Your task to perform on an android device: Search for vegetarian restaurants on Maps Image 0: 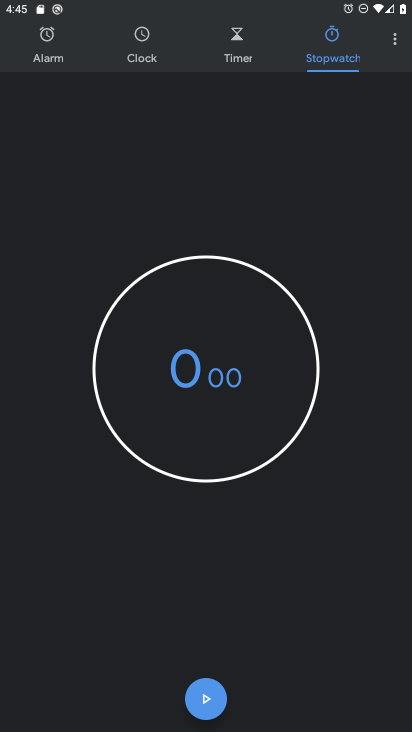
Step 0: press home button
Your task to perform on an android device: Search for vegetarian restaurants on Maps Image 1: 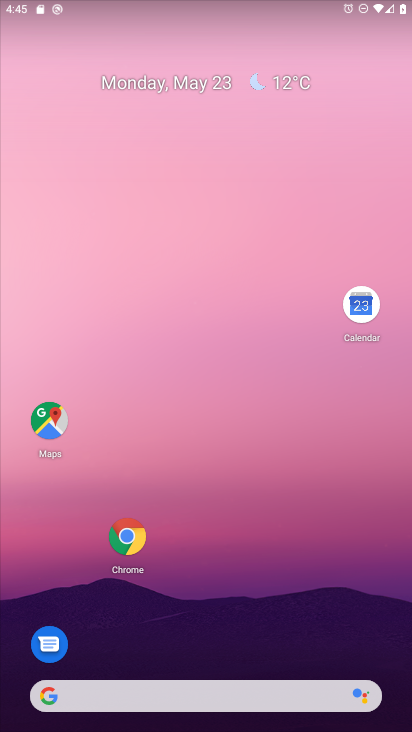
Step 1: click (46, 414)
Your task to perform on an android device: Search for vegetarian restaurants on Maps Image 2: 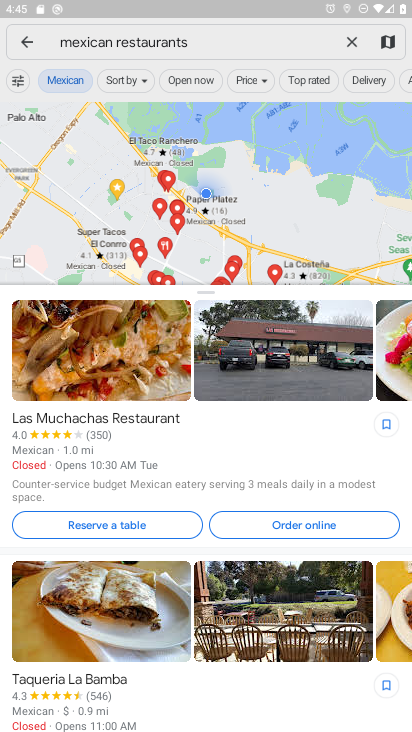
Step 2: click (214, 52)
Your task to perform on an android device: Search for vegetarian restaurants on Maps Image 3: 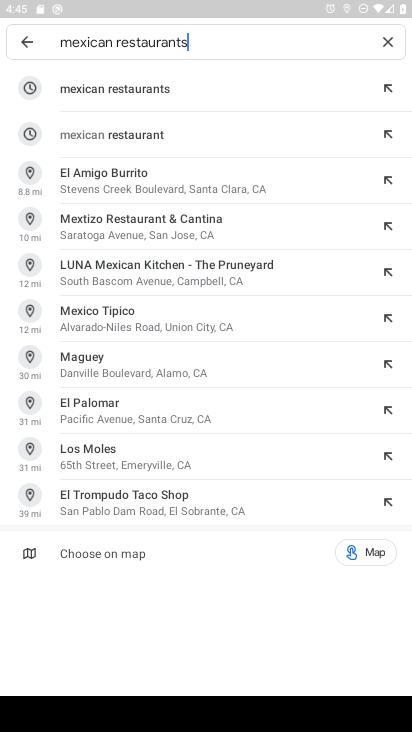
Step 3: click (383, 36)
Your task to perform on an android device: Search for vegetarian restaurants on Maps Image 4: 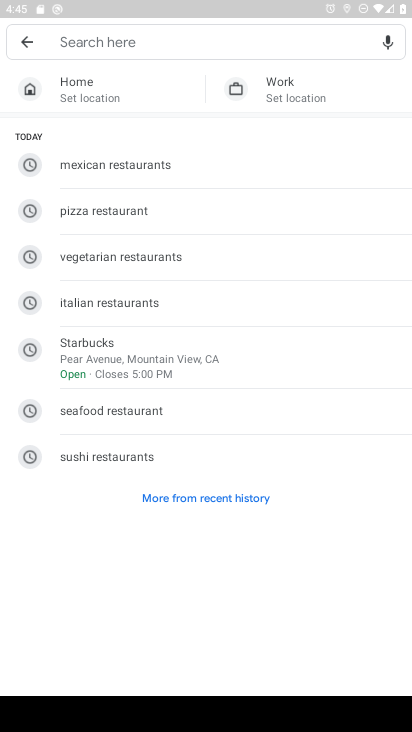
Step 4: click (205, 249)
Your task to perform on an android device: Search for vegetarian restaurants on Maps Image 5: 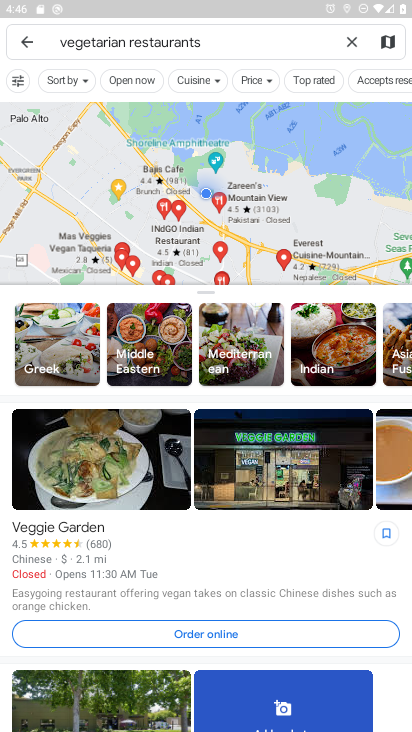
Step 5: task complete